Your task to perform on an android device: turn off smart reply in the gmail app Image 0: 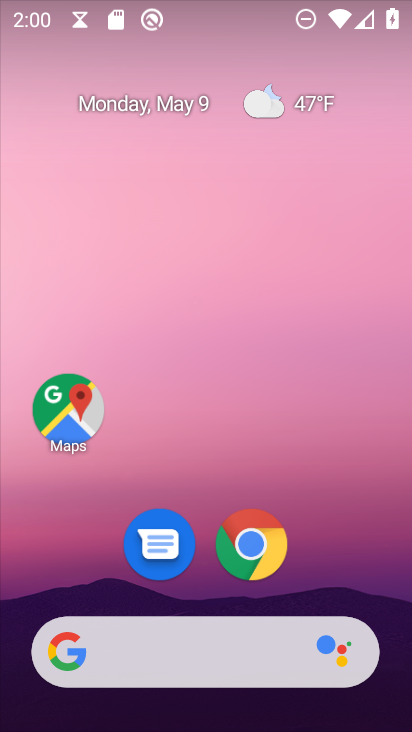
Step 0: drag from (367, 505) to (395, 224)
Your task to perform on an android device: turn off smart reply in the gmail app Image 1: 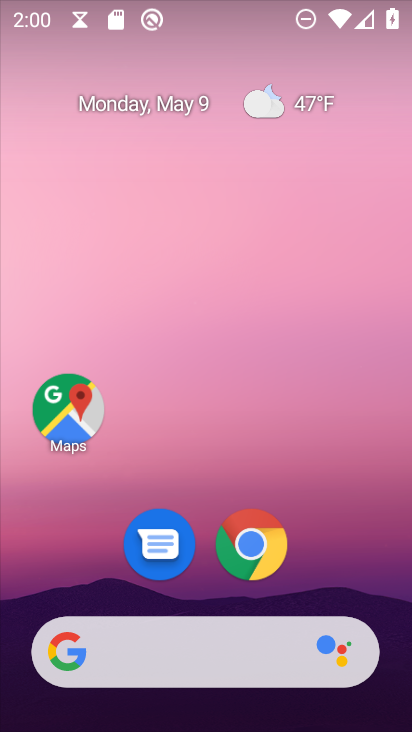
Step 1: drag from (323, 445) to (333, 3)
Your task to perform on an android device: turn off smart reply in the gmail app Image 2: 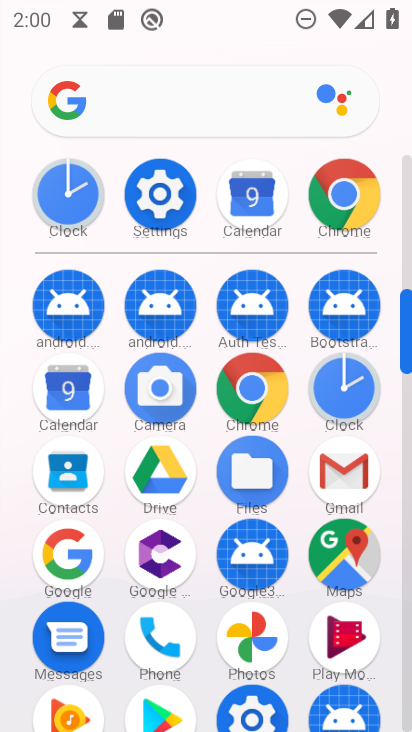
Step 2: click (365, 477)
Your task to perform on an android device: turn off smart reply in the gmail app Image 3: 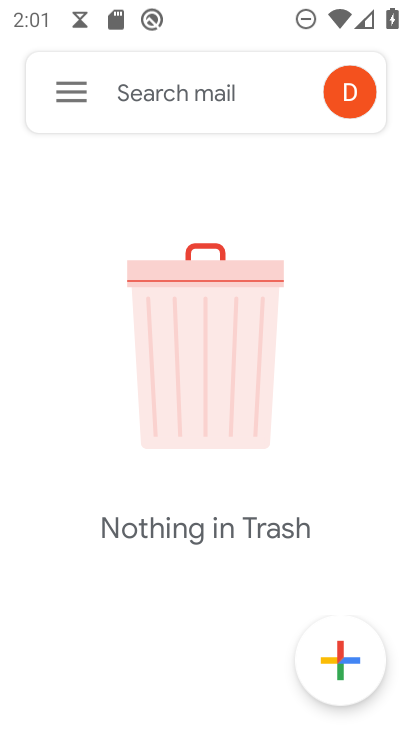
Step 3: click (70, 95)
Your task to perform on an android device: turn off smart reply in the gmail app Image 4: 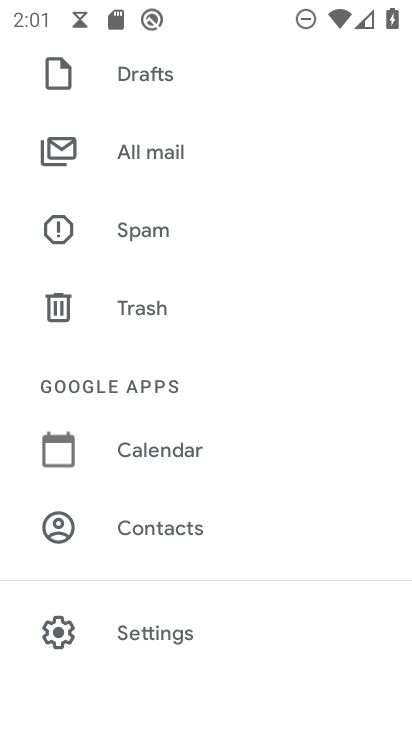
Step 4: click (147, 636)
Your task to perform on an android device: turn off smart reply in the gmail app Image 5: 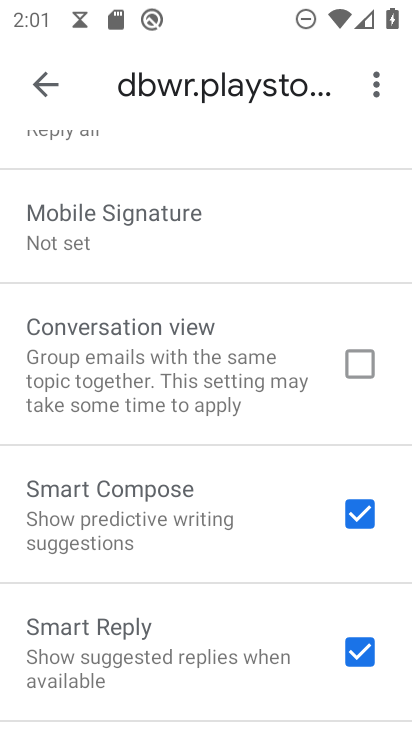
Step 5: drag from (139, 623) to (182, 373)
Your task to perform on an android device: turn off smart reply in the gmail app Image 6: 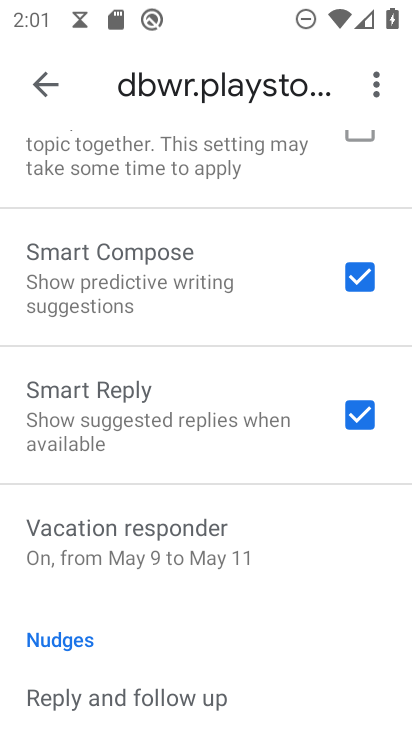
Step 6: click (352, 424)
Your task to perform on an android device: turn off smart reply in the gmail app Image 7: 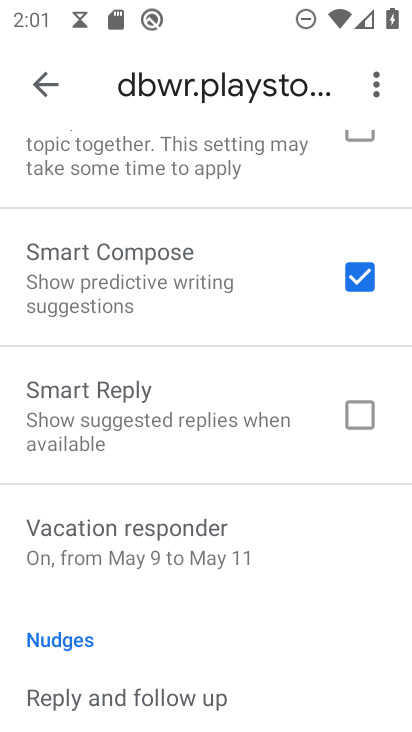
Step 7: task complete